Your task to perform on an android device: set the stopwatch Image 0: 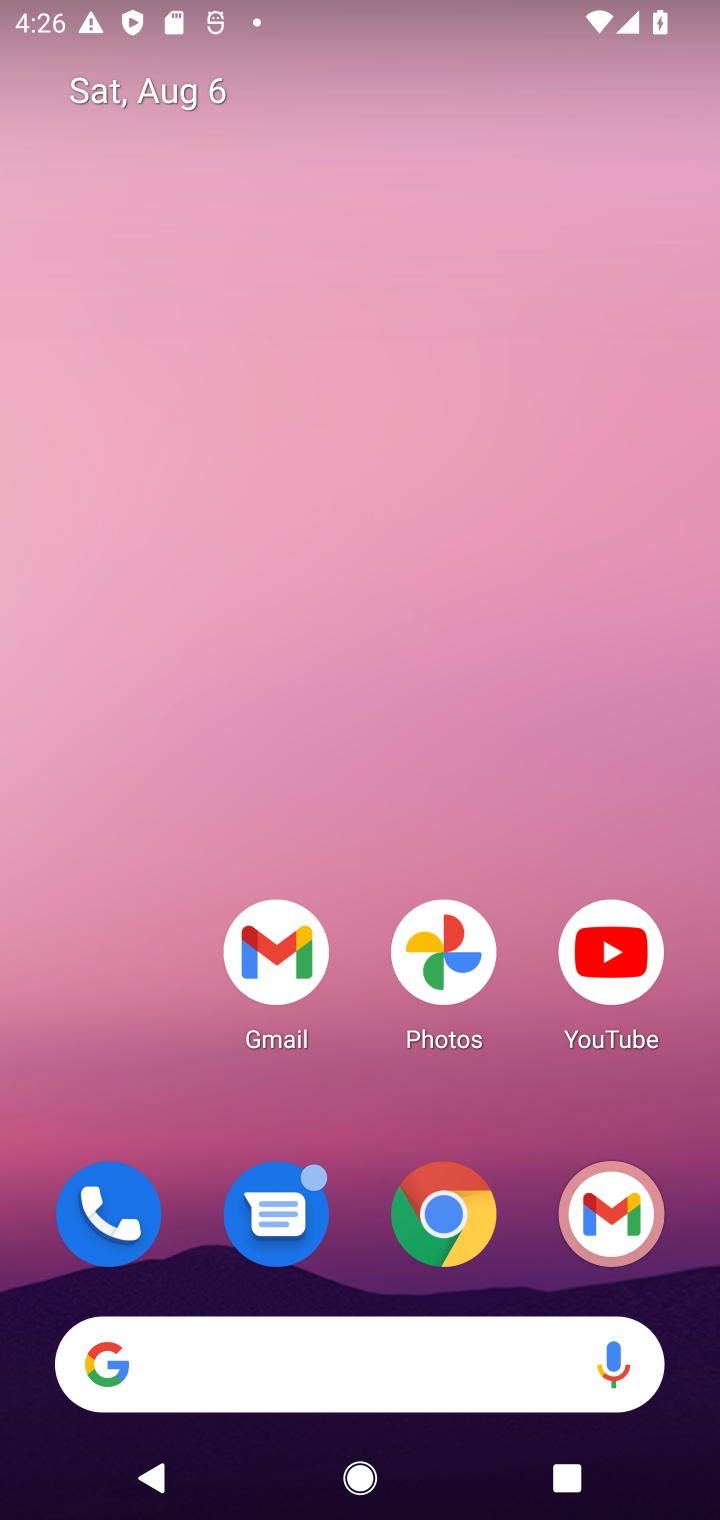
Step 0: drag from (379, 1050) to (502, 263)
Your task to perform on an android device: set the stopwatch Image 1: 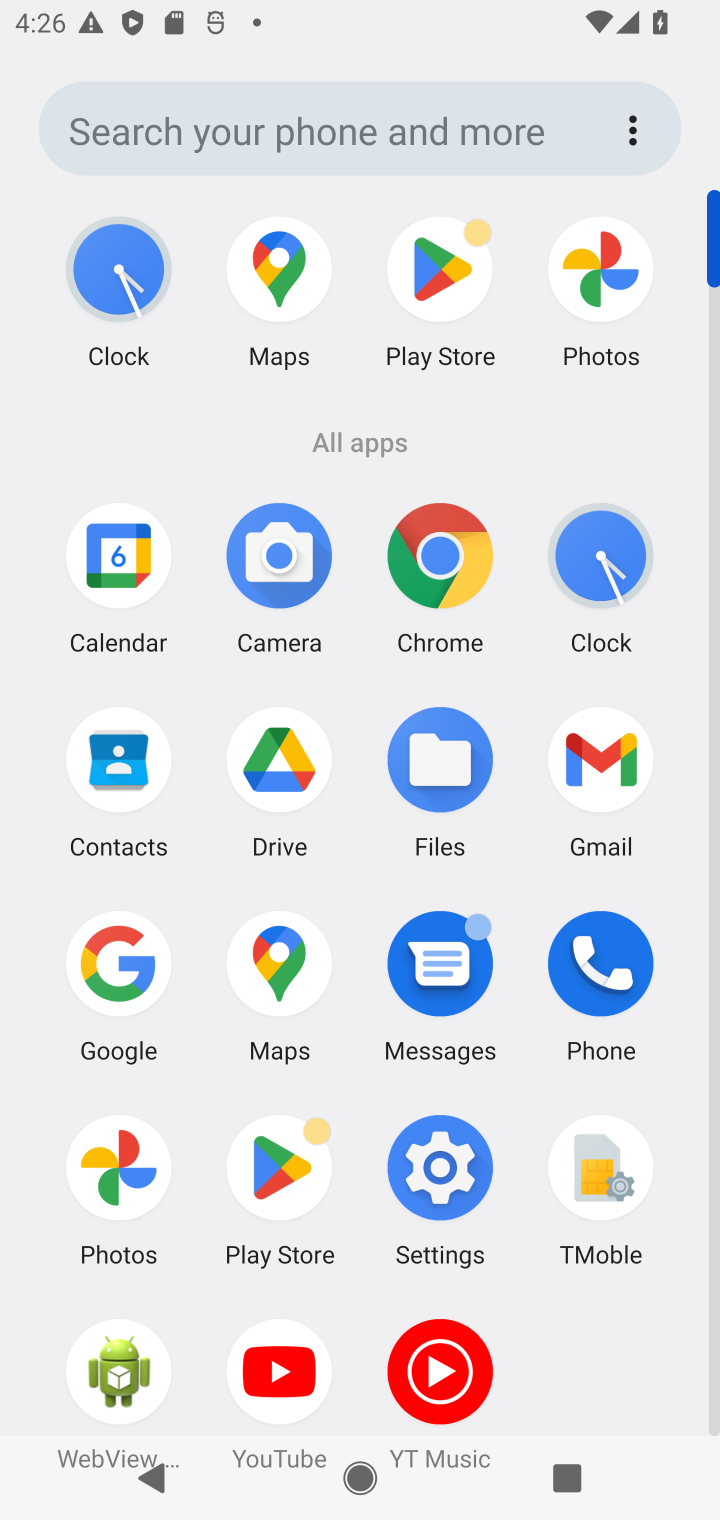
Step 1: click (597, 592)
Your task to perform on an android device: set the stopwatch Image 2: 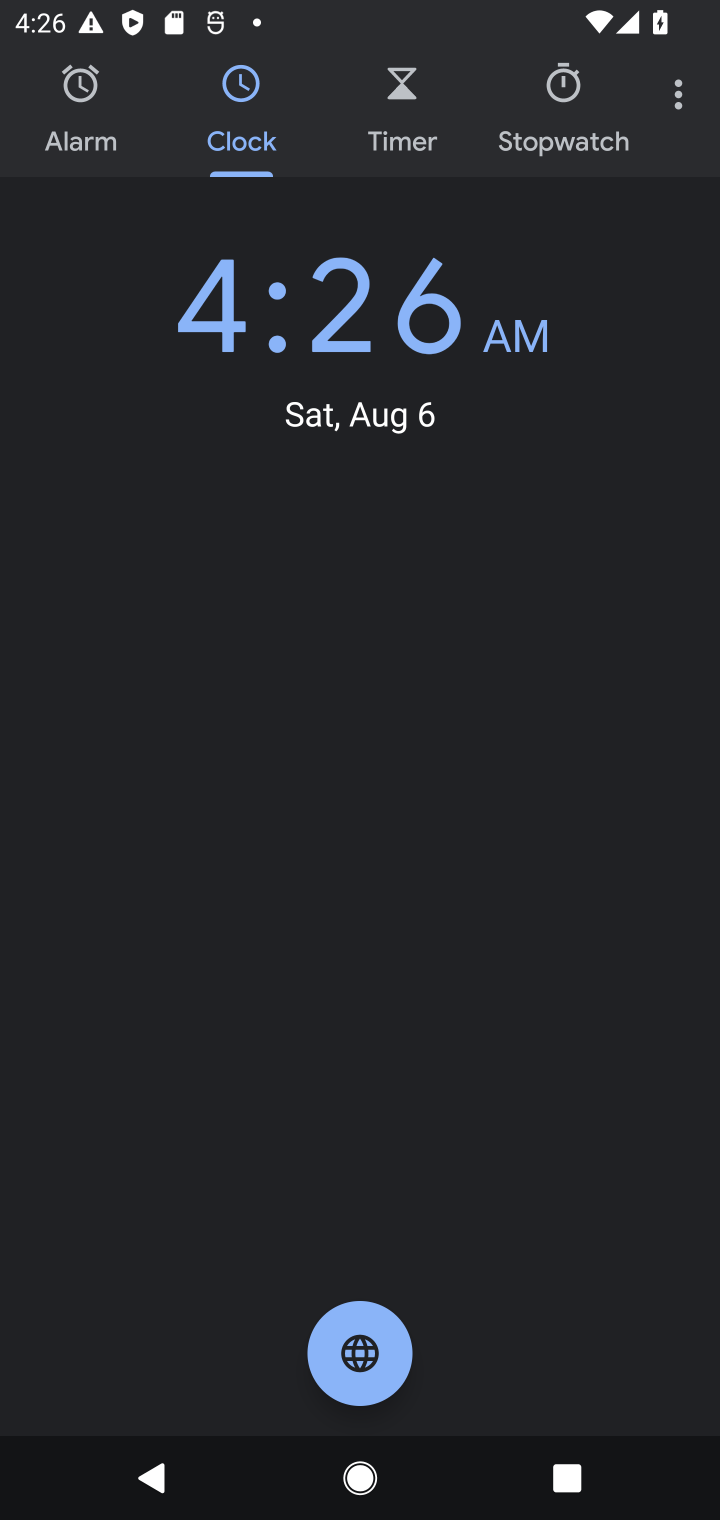
Step 2: click (587, 135)
Your task to perform on an android device: set the stopwatch Image 3: 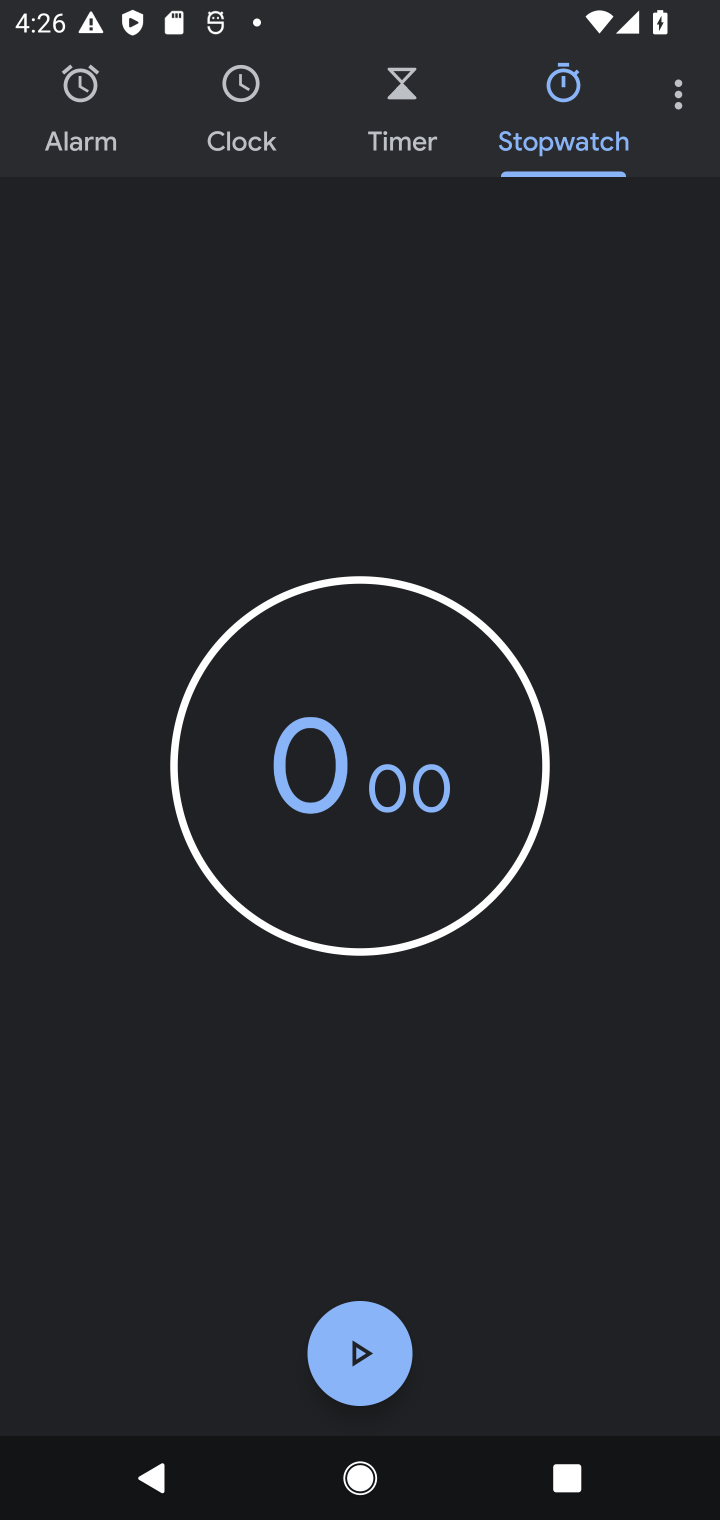
Step 3: click (352, 1369)
Your task to perform on an android device: set the stopwatch Image 4: 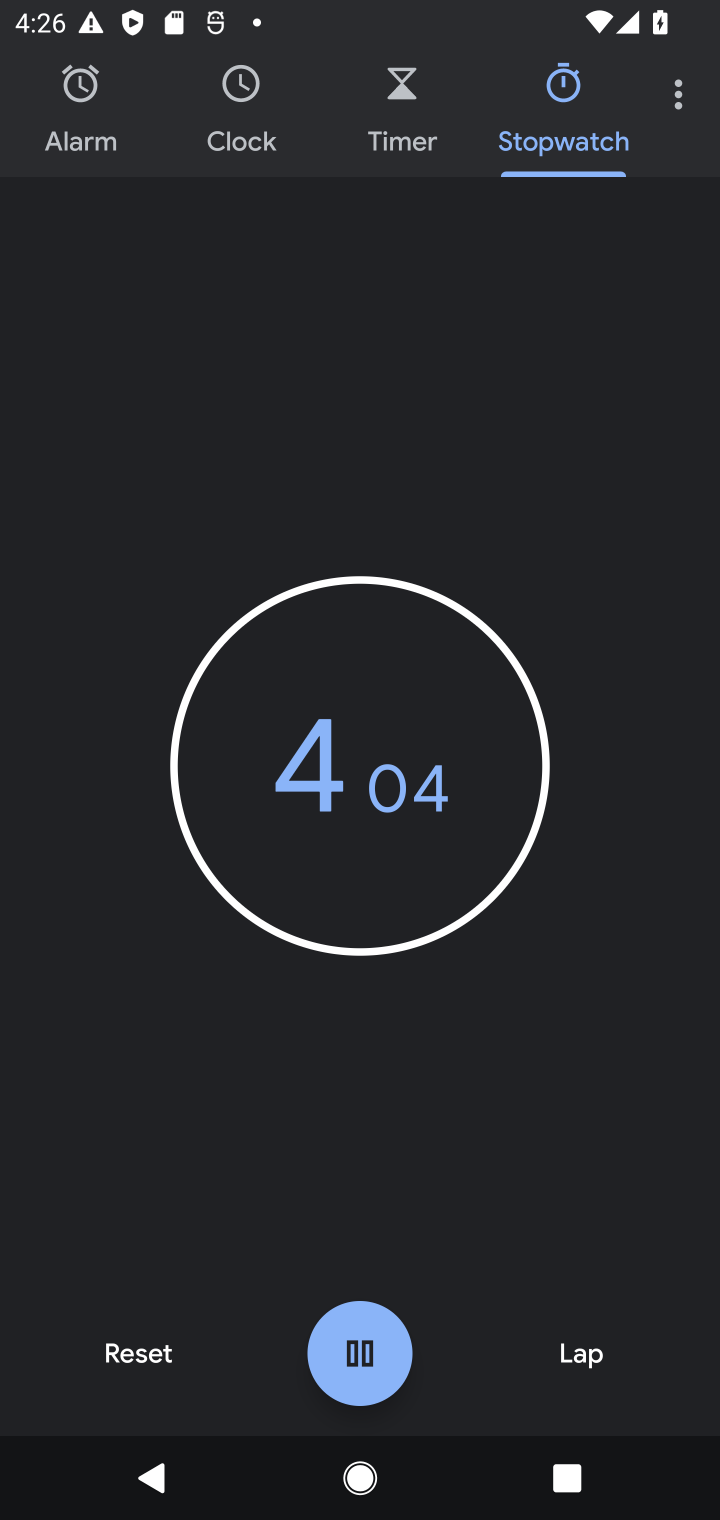
Step 4: click (352, 1369)
Your task to perform on an android device: set the stopwatch Image 5: 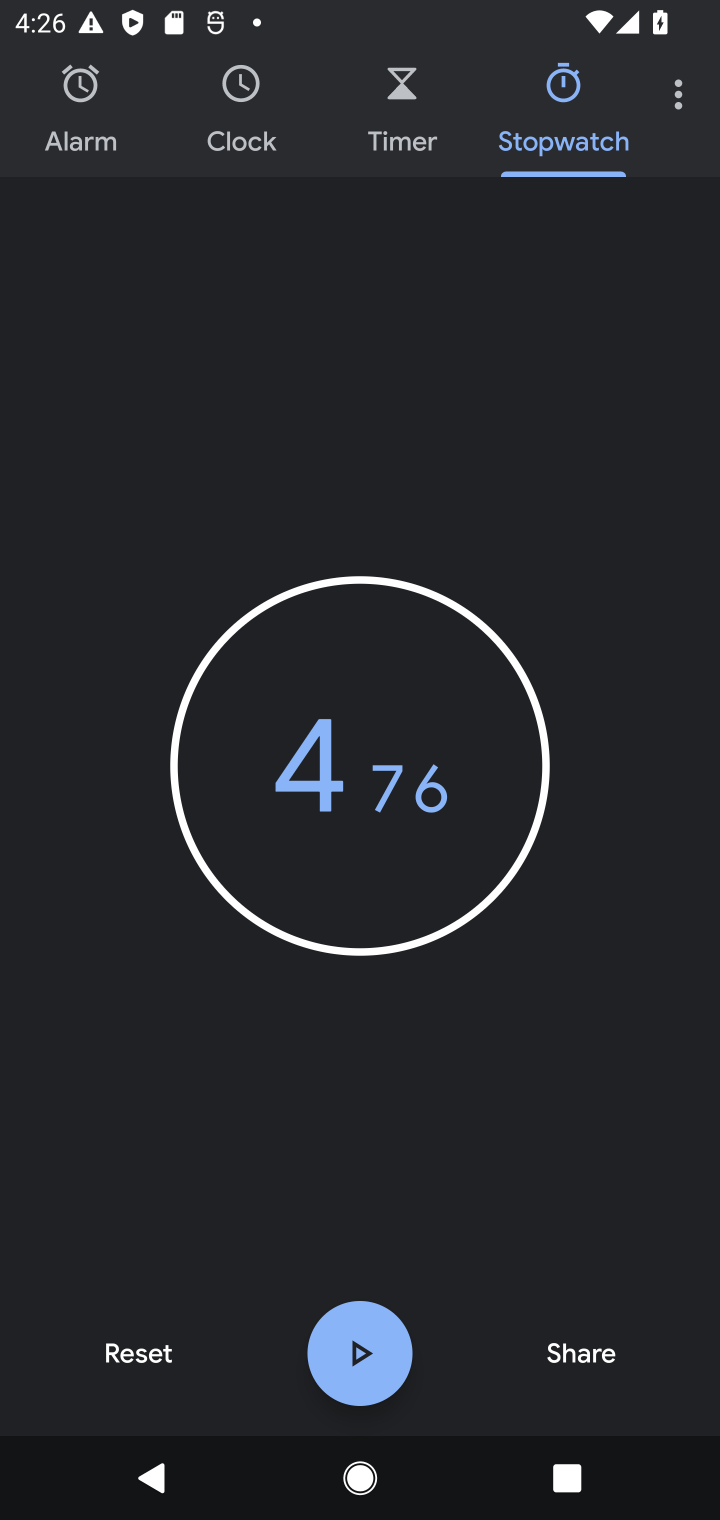
Step 5: task complete